Your task to perform on an android device: add a contact in the contacts app Image 0: 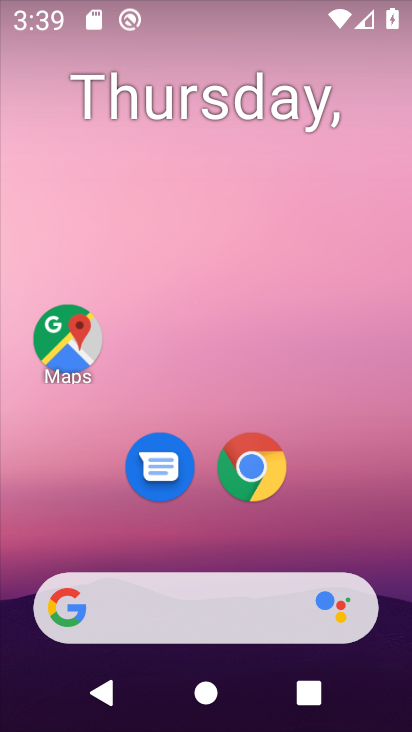
Step 0: drag from (183, 521) to (300, 21)
Your task to perform on an android device: add a contact in the contacts app Image 1: 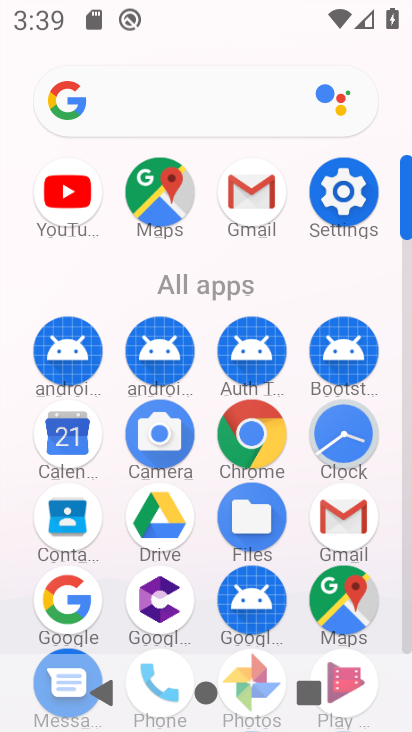
Step 1: click (65, 516)
Your task to perform on an android device: add a contact in the contacts app Image 2: 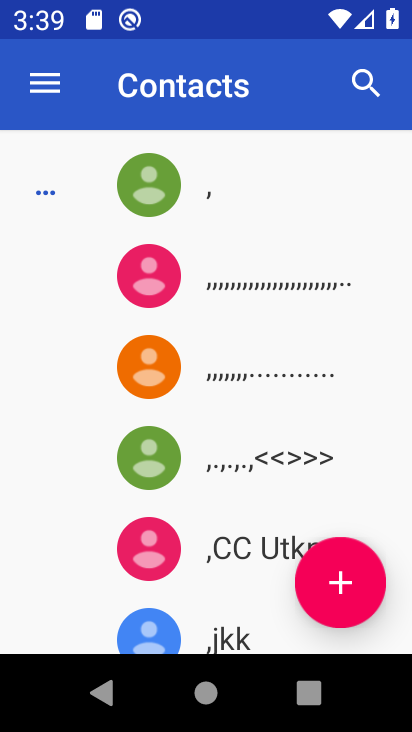
Step 2: click (347, 574)
Your task to perform on an android device: add a contact in the contacts app Image 3: 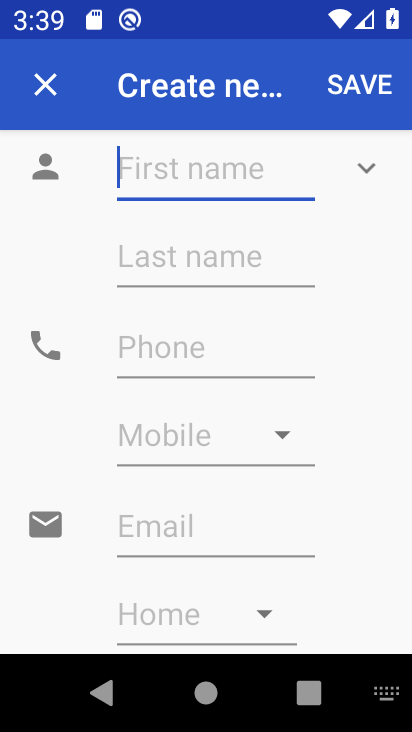
Step 3: type "claudia"
Your task to perform on an android device: add a contact in the contacts app Image 4: 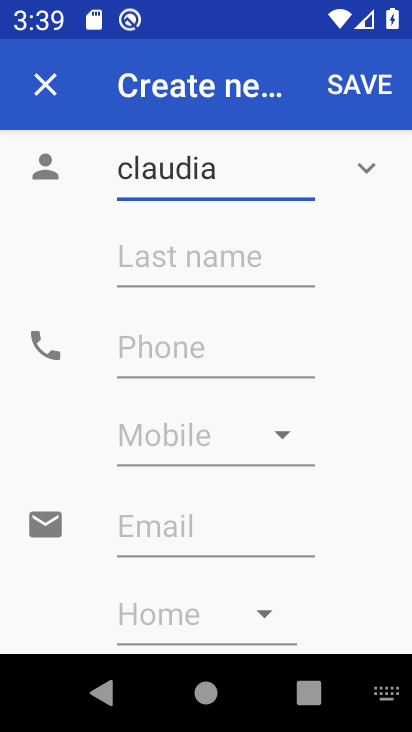
Step 4: click (374, 93)
Your task to perform on an android device: add a contact in the contacts app Image 5: 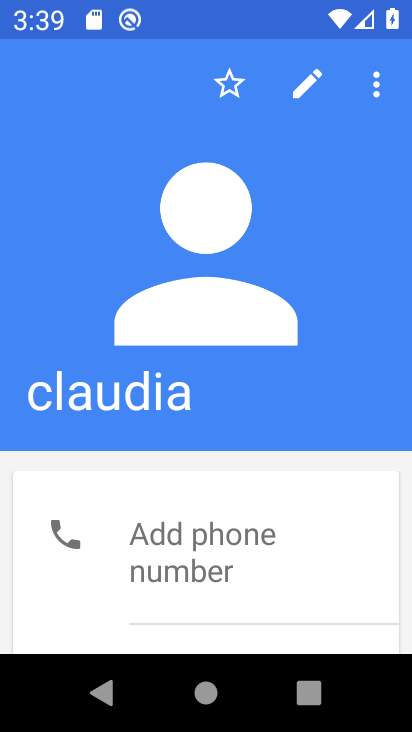
Step 5: task complete